Your task to perform on an android device: turn on airplane mode Image 0: 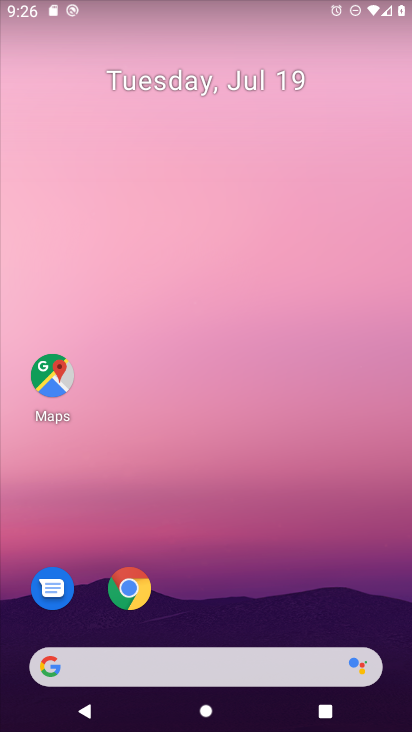
Step 0: drag from (369, 596) to (375, 69)
Your task to perform on an android device: turn on airplane mode Image 1: 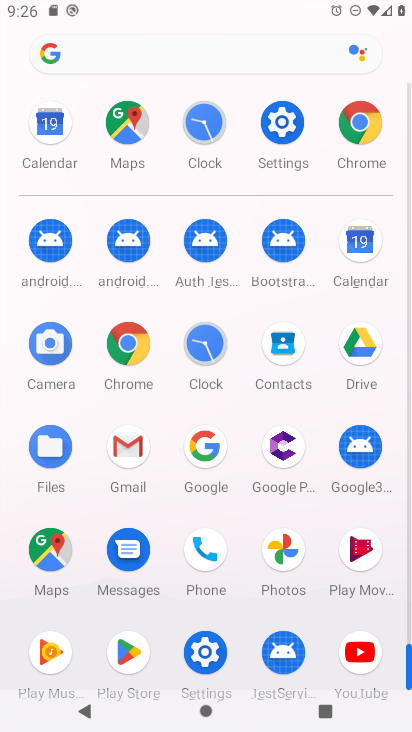
Step 1: click (279, 123)
Your task to perform on an android device: turn on airplane mode Image 2: 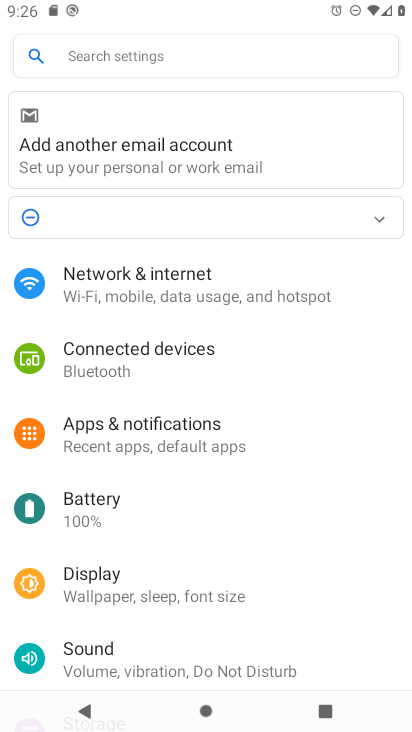
Step 2: drag from (340, 393) to (346, 285)
Your task to perform on an android device: turn on airplane mode Image 3: 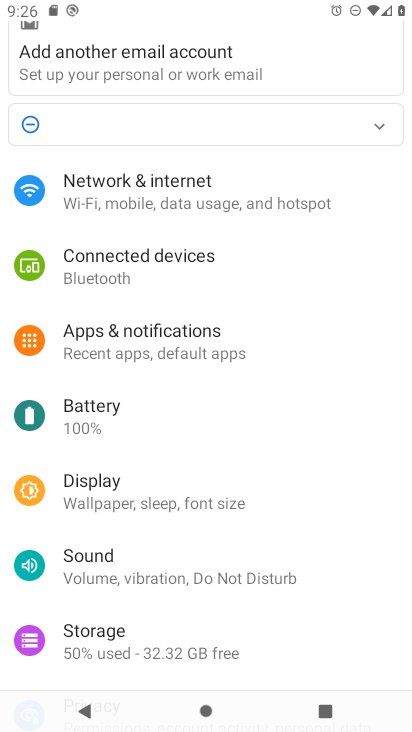
Step 3: drag from (346, 403) to (337, 287)
Your task to perform on an android device: turn on airplane mode Image 4: 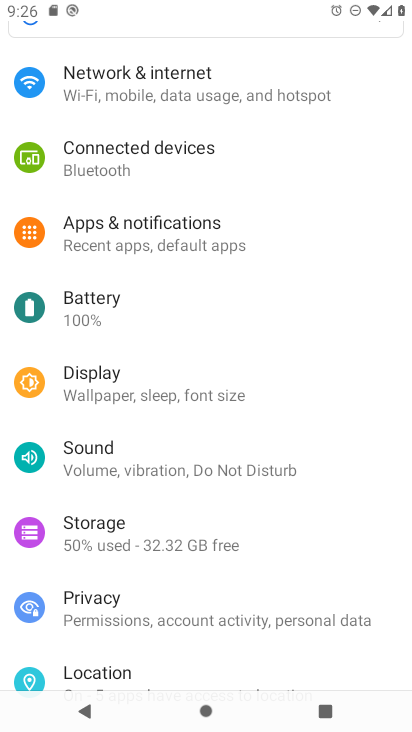
Step 4: drag from (334, 478) to (347, 340)
Your task to perform on an android device: turn on airplane mode Image 5: 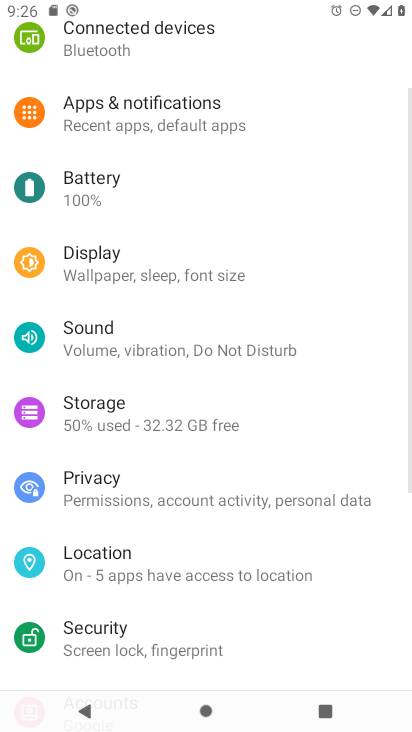
Step 5: drag from (337, 535) to (346, 306)
Your task to perform on an android device: turn on airplane mode Image 6: 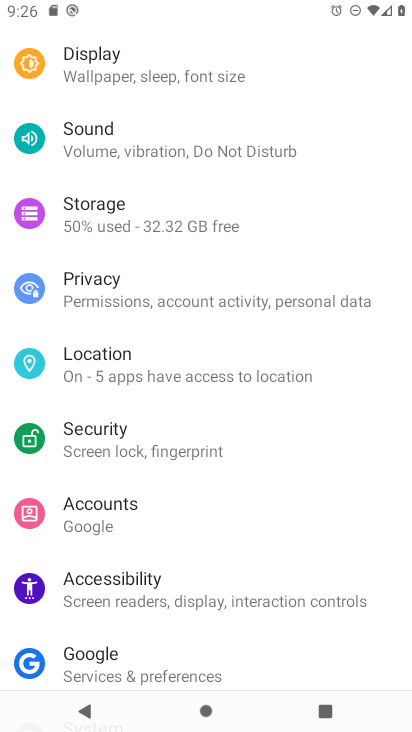
Step 6: drag from (340, 193) to (339, 366)
Your task to perform on an android device: turn on airplane mode Image 7: 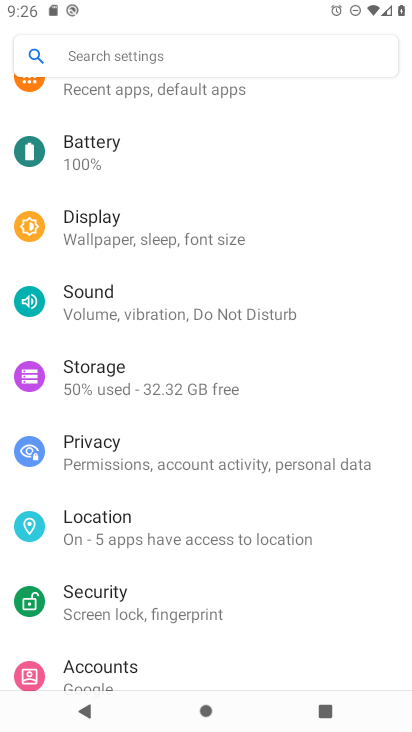
Step 7: drag from (339, 268) to (345, 402)
Your task to perform on an android device: turn on airplane mode Image 8: 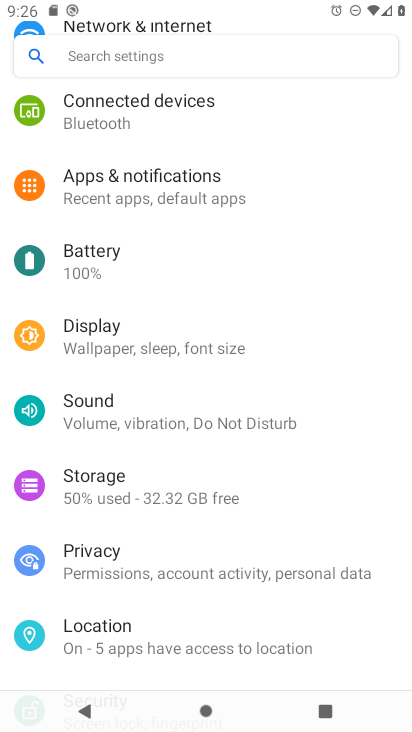
Step 8: click (350, 324)
Your task to perform on an android device: turn on airplane mode Image 9: 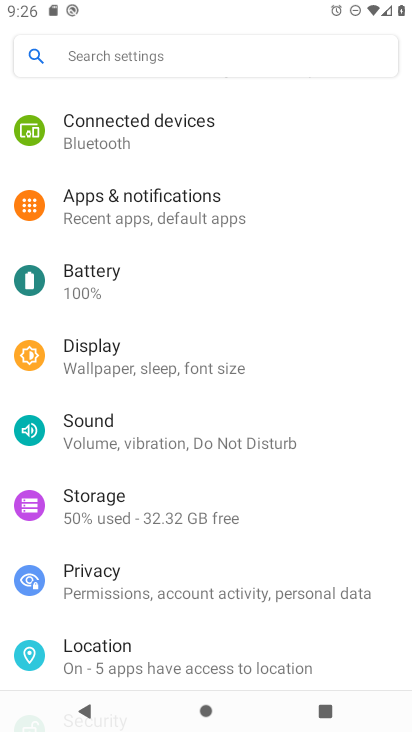
Step 9: drag from (355, 194) to (360, 359)
Your task to perform on an android device: turn on airplane mode Image 10: 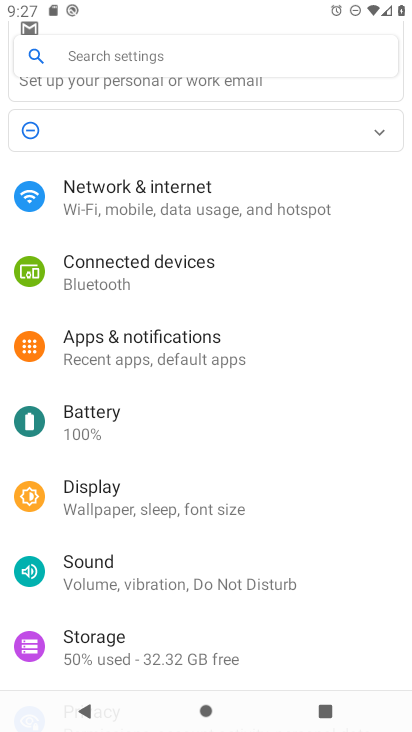
Step 10: click (297, 196)
Your task to perform on an android device: turn on airplane mode Image 11: 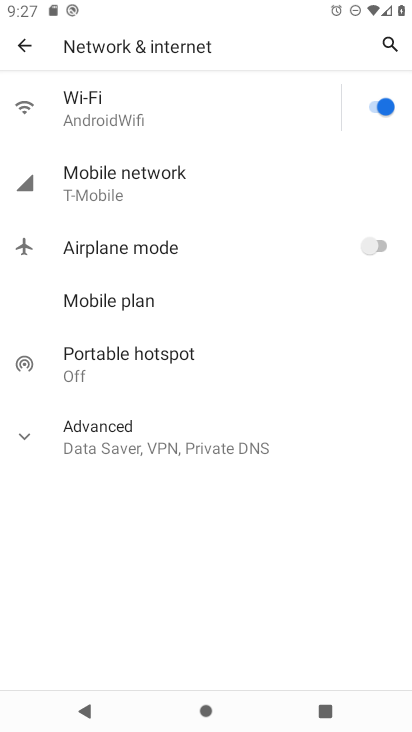
Step 11: click (390, 239)
Your task to perform on an android device: turn on airplane mode Image 12: 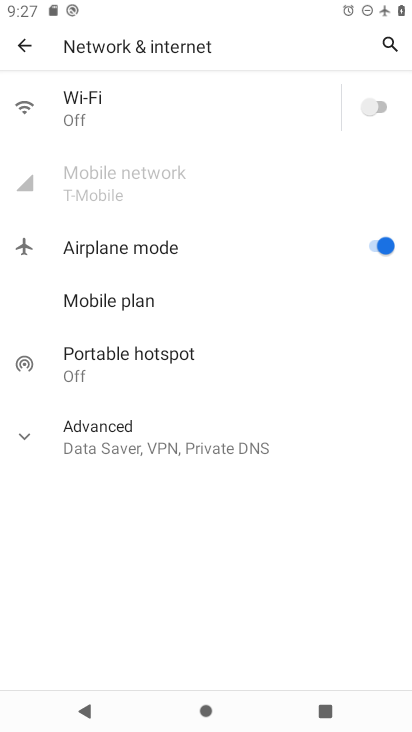
Step 12: task complete